Your task to perform on an android device: open app "Reddit" (install if not already installed) and enter user name: "issues@yahoo.com" and password: "belt" Image 0: 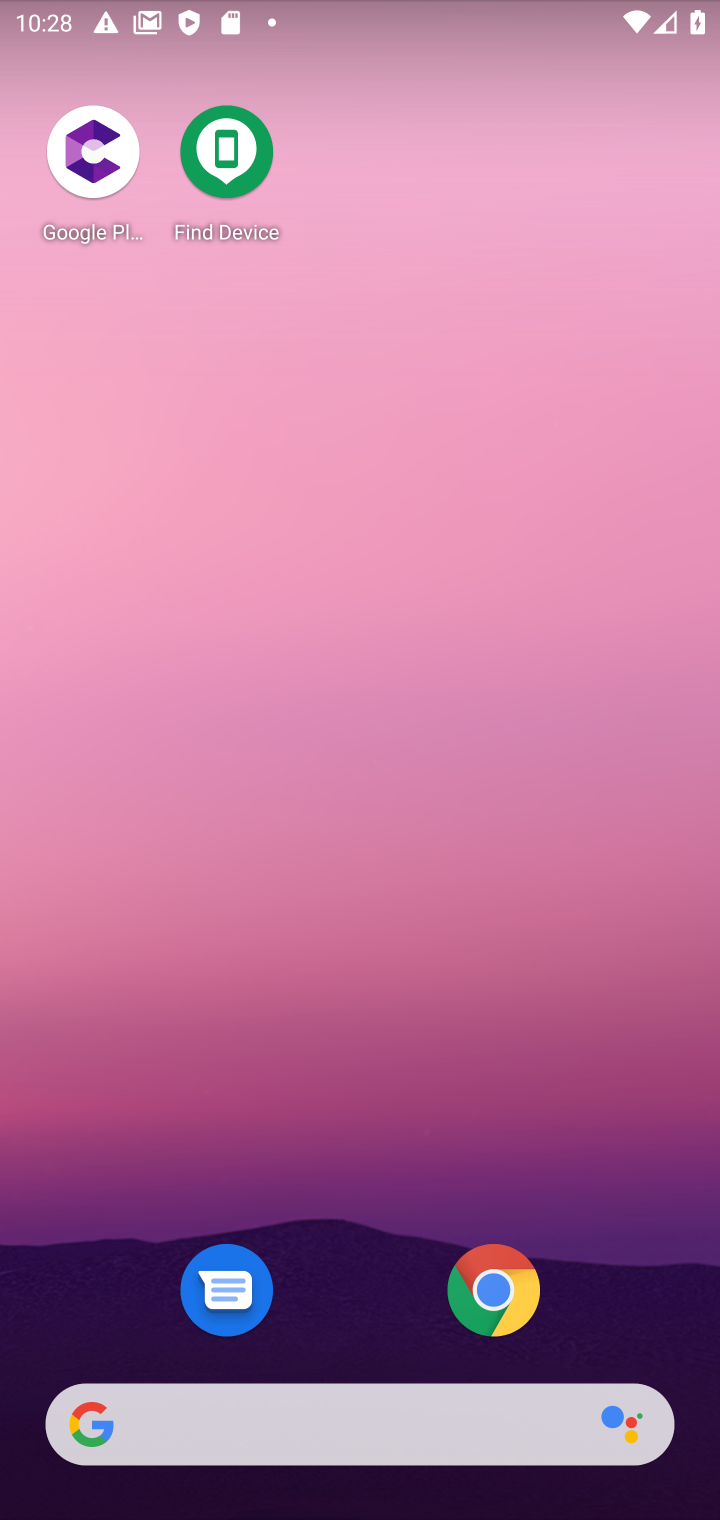
Step 0: drag from (363, 1368) to (361, 57)
Your task to perform on an android device: open app "Reddit" (install if not already installed) and enter user name: "issues@yahoo.com" and password: "belt" Image 1: 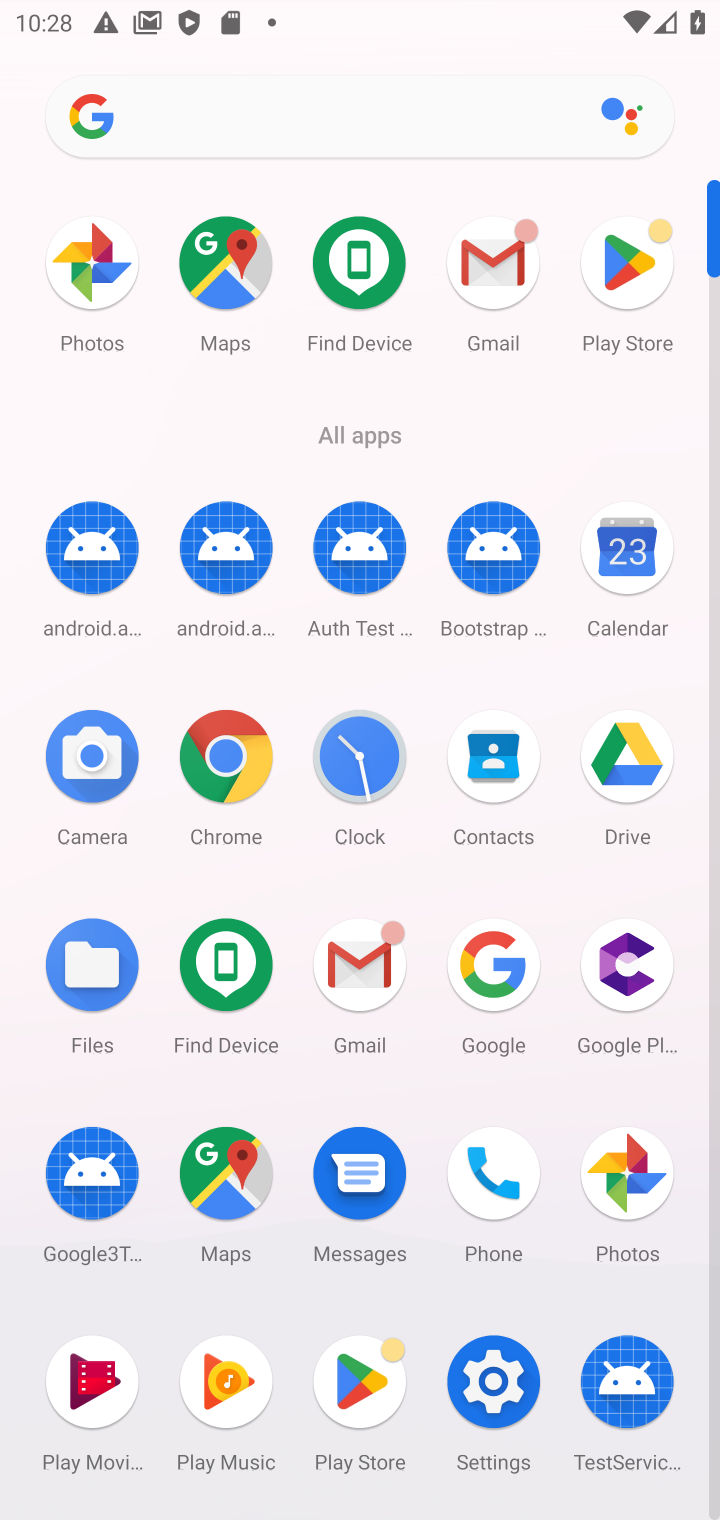
Step 1: click (634, 260)
Your task to perform on an android device: open app "Reddit" (install if not already installed) and enter user name: "issues@yahoo.com" and password: "belt" Image 2: 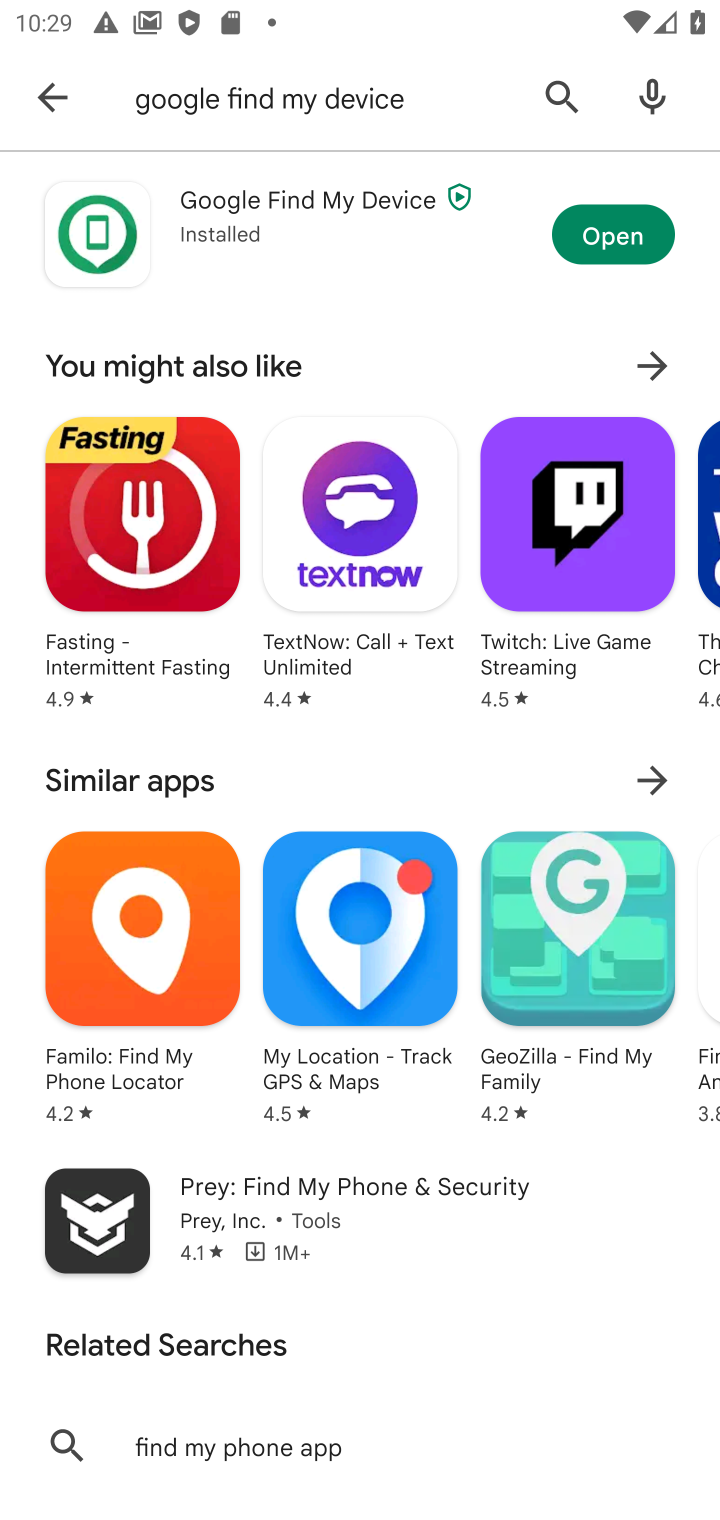
Step 2: click (548, 89)
Your task to perform on an android device: open app "Reddit" (install if not already installed) and enter user name: "issues@yahoo.com" and password: "belt" Image 3: 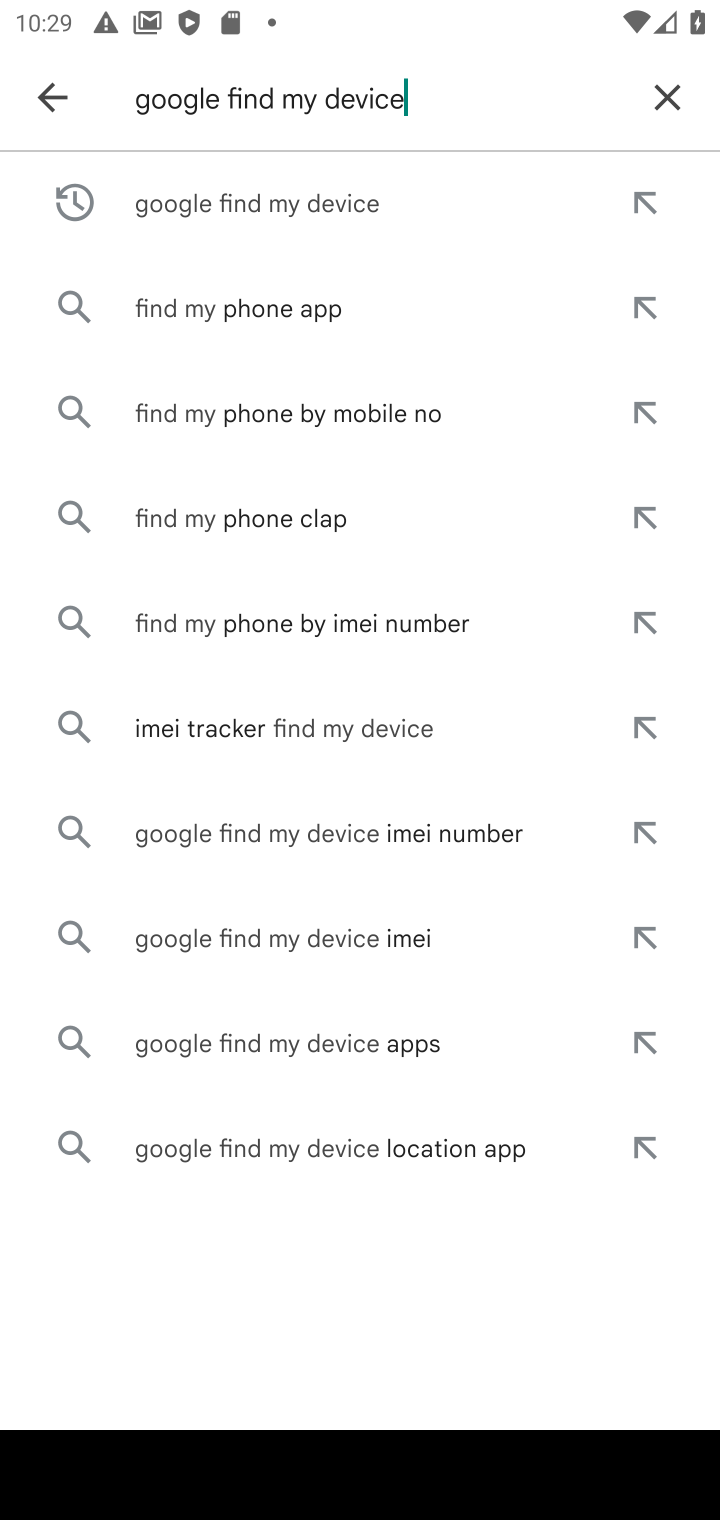
Step 3: click (676, 92)
Your task to perform on an android device: open app "Reddit" (install if not already installed) and enter user name: "issues@yahoo.com" and password: "belt" Image 4: 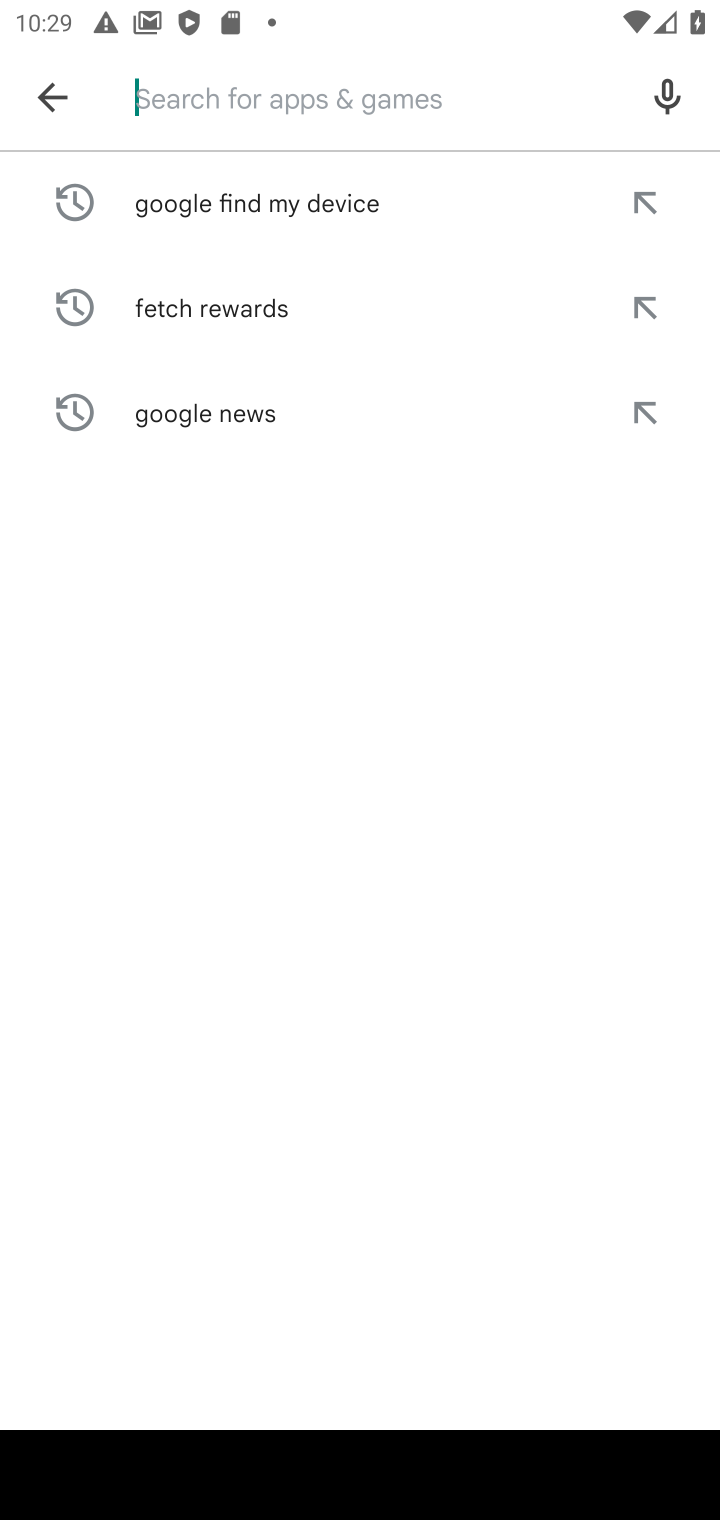
Step 4: type "Reddit"
Your task to perform on an android device: open app "Reddit" (install if not already installed) and enter user name: "issues@yahoo.com" and password: "belt" Image 5: 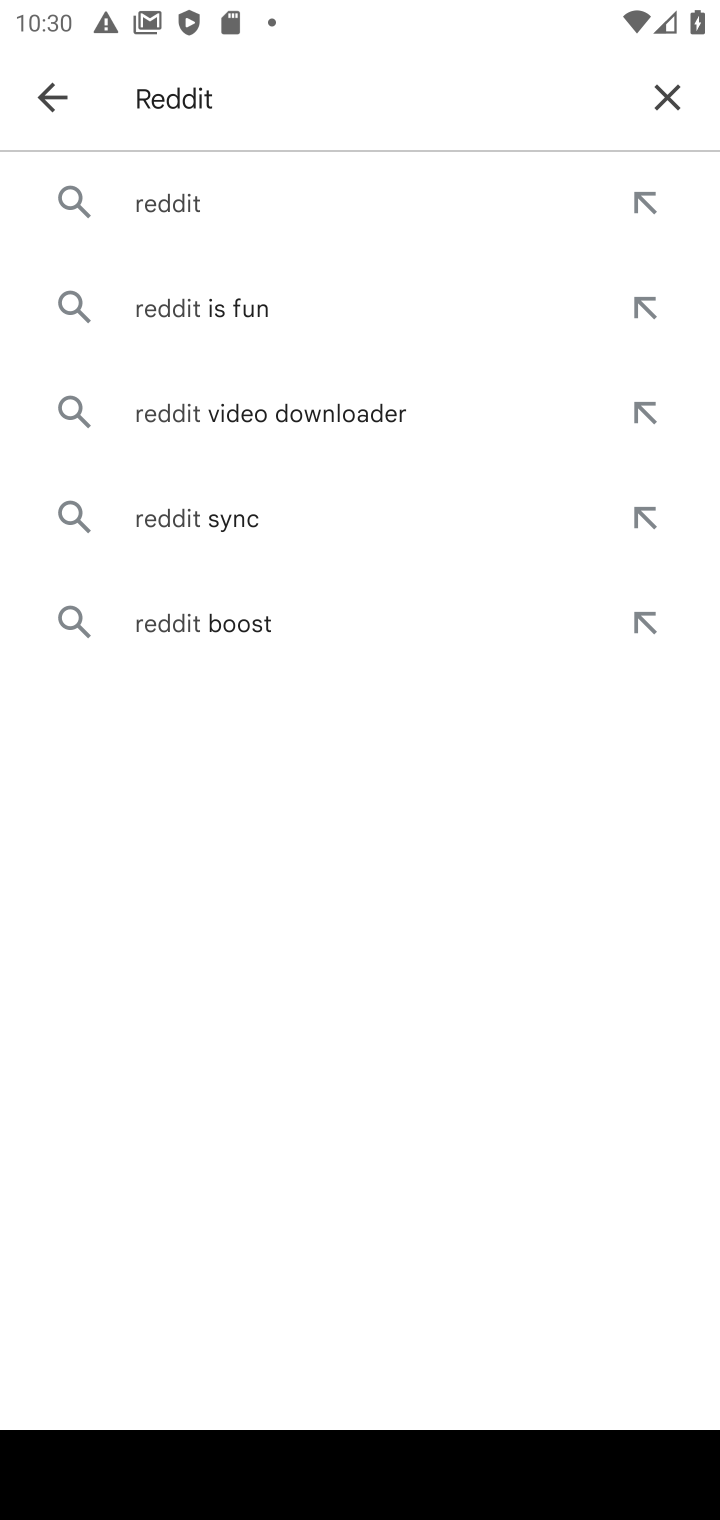
Step 5: click (173, 197)
Your task to perform on an android device: open app "Reddit" (install if not already installed) and enter user name: "issues@yahoo.com" and password: "belt" Image 6: 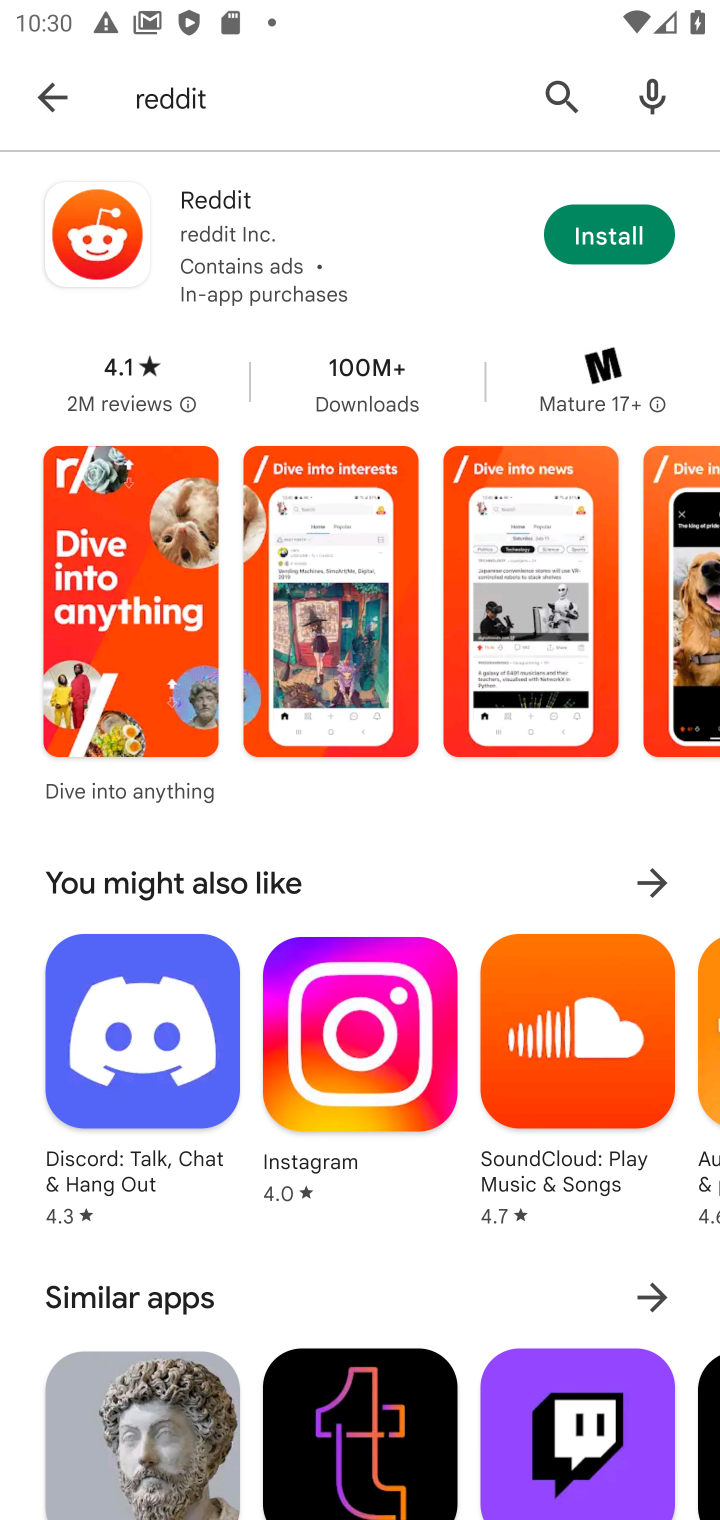
Step 6: click (590, 237)
Your task to perform on an android device: open app "Reddit" (install if not already installed) and enter user name: "issues@yahoo.com" and password: "belt" Image 7: 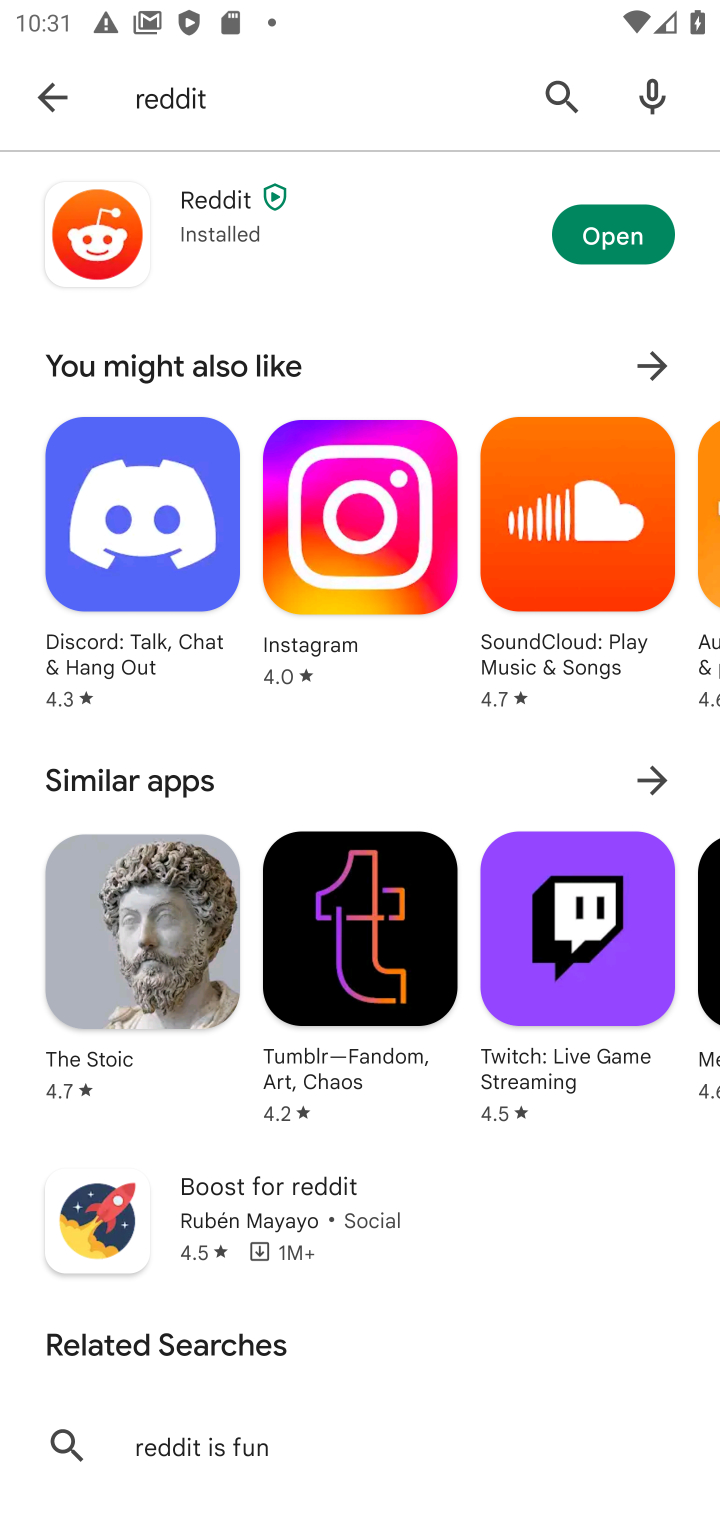
Step 7: click (615, 238)
Your task to perform on an android device: open app "Reddit" (install if not already installed) and enter user name: "issues@yahoo.com" and password: "belt" Image 8: 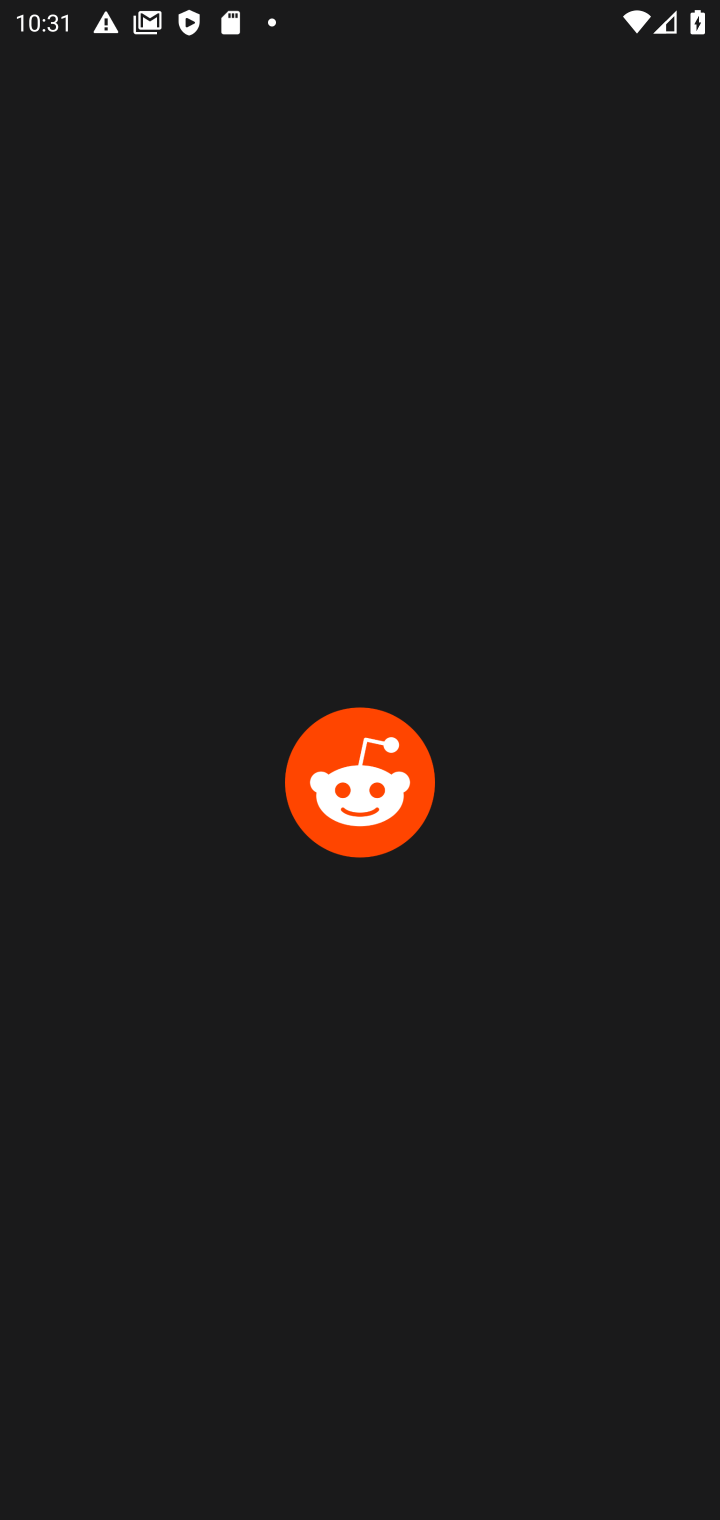
Step 8: task complete